Your task to perform on an android device: Go to wifi settings Image 0: 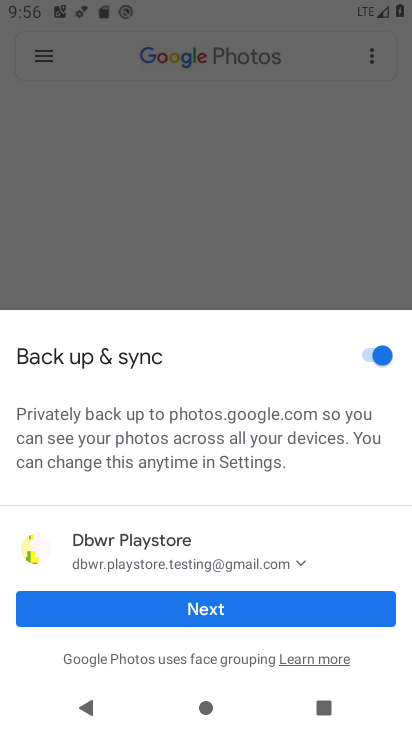
Step 0: press home button
Your task to perform on an android device: Go to wifi settings Image 1: 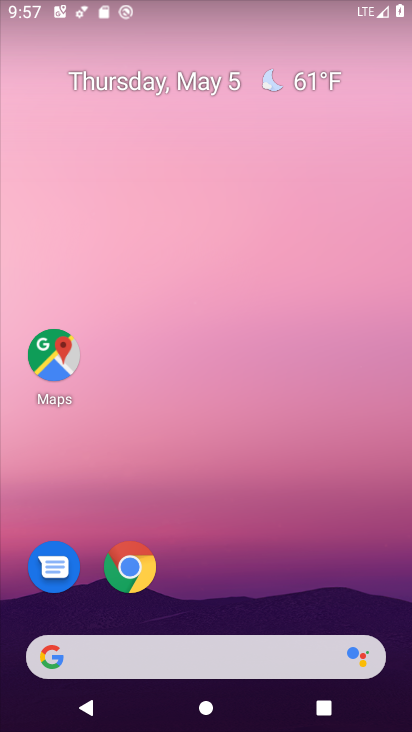
Step 1: drag from (277, 608) to (302, 140)
Your task to perform on an android device: Go to wifi settings Image 2: 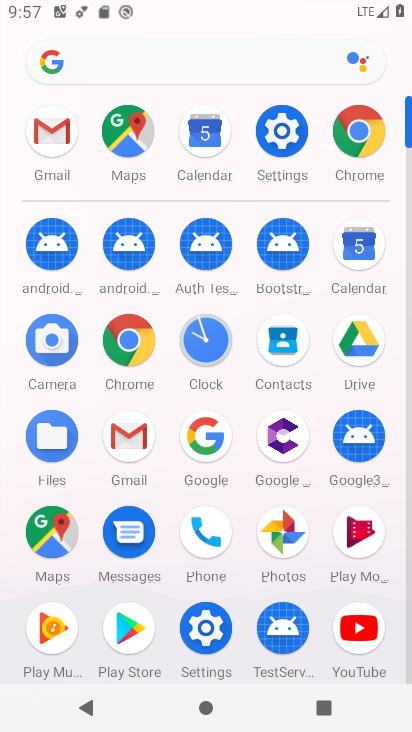
Step 2: click (292, 128)
Your task to perform on an android device: Go to wifi settings Image 3: 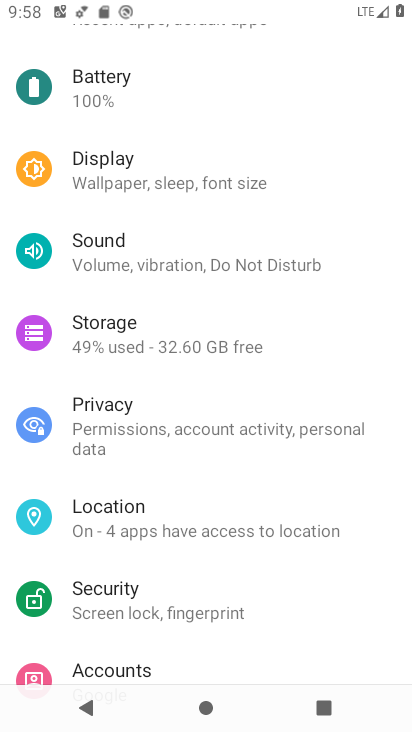
Step 3: drag from (223, 124) to (151, 489)
Your task to perform on an android device: Go to wifi settings Image 4: 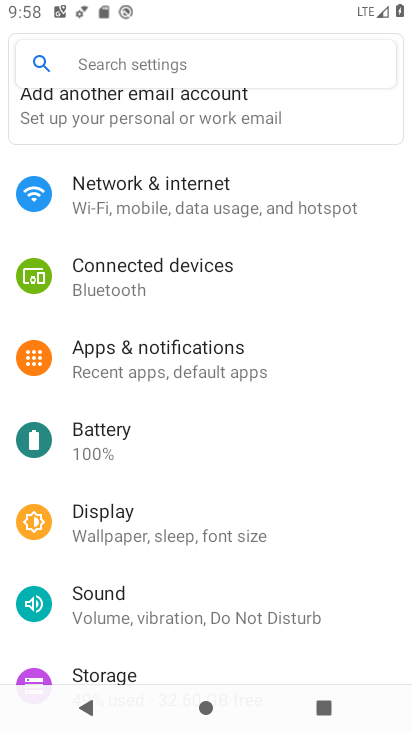
Step 4: click (139, 200)
Your task to perform on an android device: Go to wifi settings Image 5: 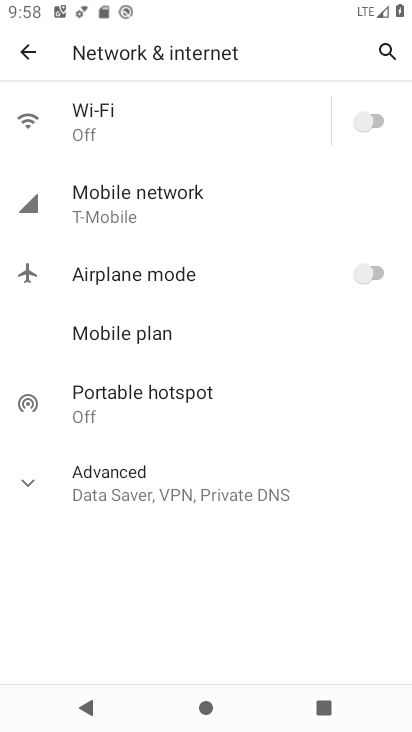
Step 5: click (95, 126)
Your task to perform on an android device: Go to wifi settings Image 6: 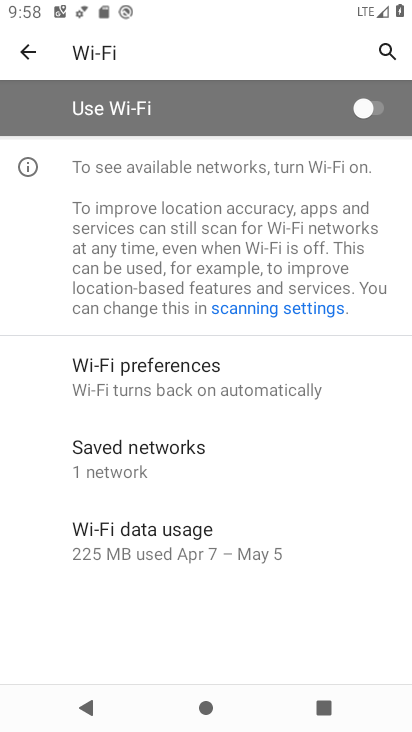
Step 6: task complete